Your task to perform on an android device: snooze an email in the gmail app Image 0: 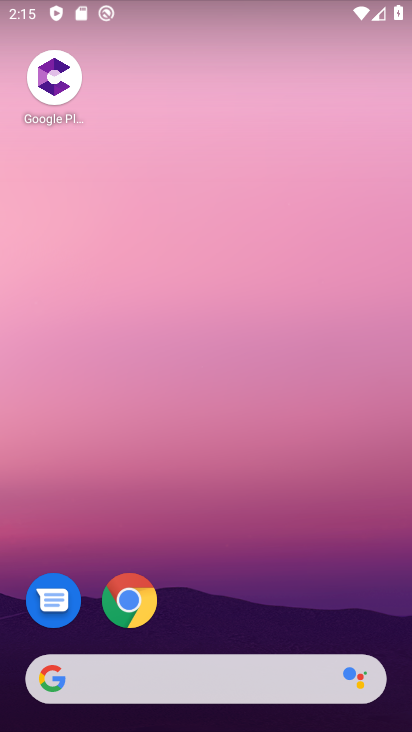
Step 0: drag from (161, 620) to (245, 239)
Your task to perform on an android device: snooze an email in the gmail app Image 1: 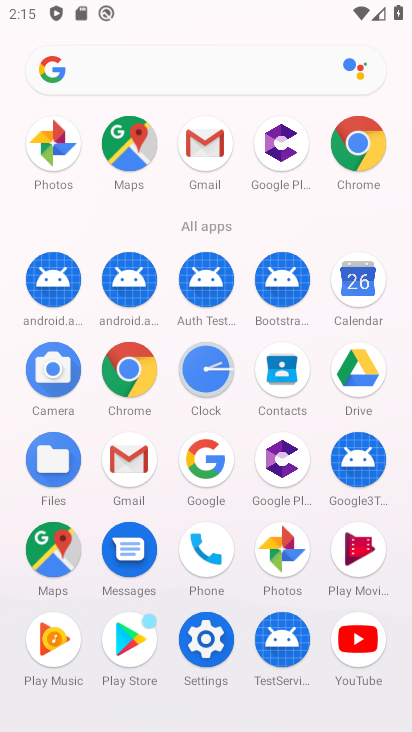
Step 1: click (134, 468)
Your task to perform on an android device: snooze an email in the gmail app Image 2: 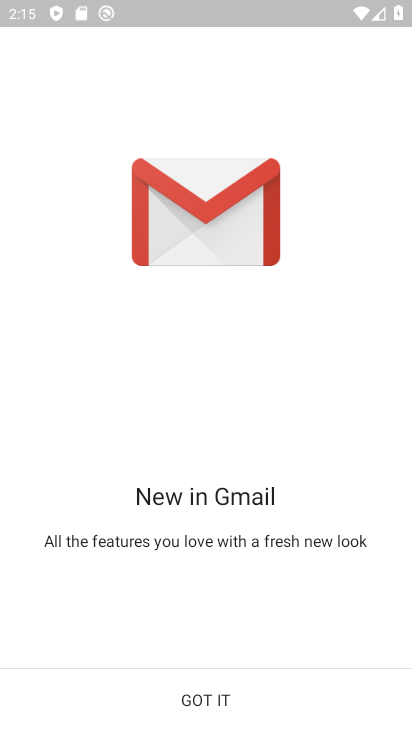
Step 2: click (215, 704)
Your task to perform on an android device: snooze an email in the gmail app Image 3: 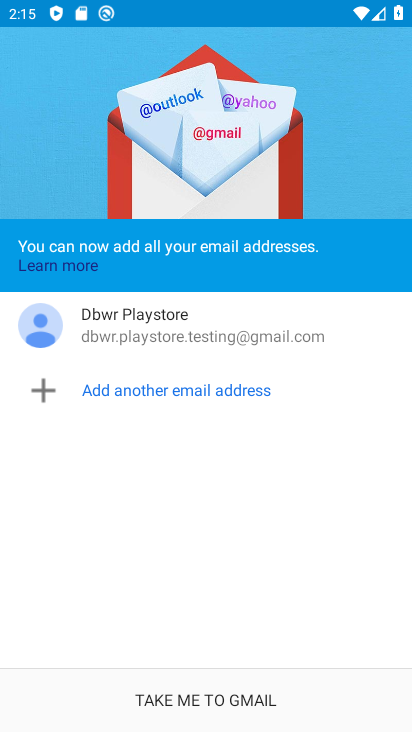
Step 3: click (286, 704)
Your task to perform on an android device: snooze an email in the gmail app Image 4: 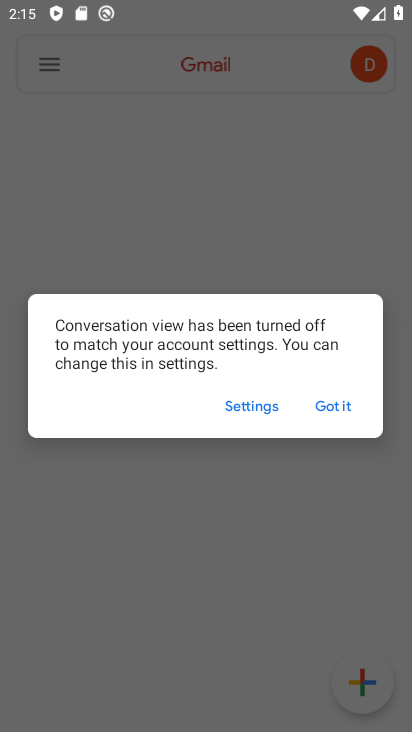
Step 4: click (348, 406)
Your task to perform on an android device: snooze an email in the gmail app Image 5: 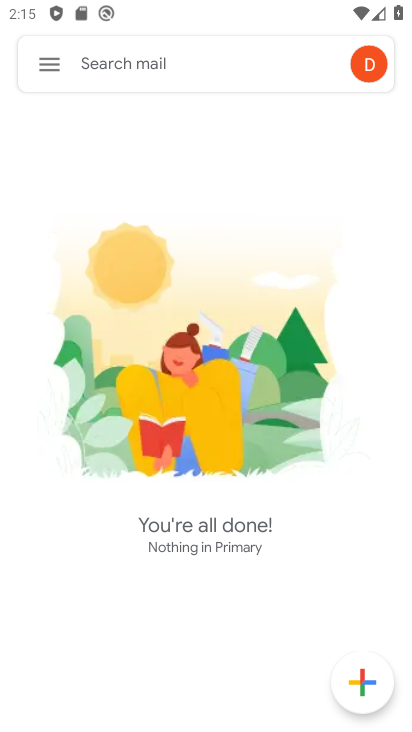
Step 5: click (55, 65)
Your task to perform on an android device: snooze an email in the gmail app Image 6: 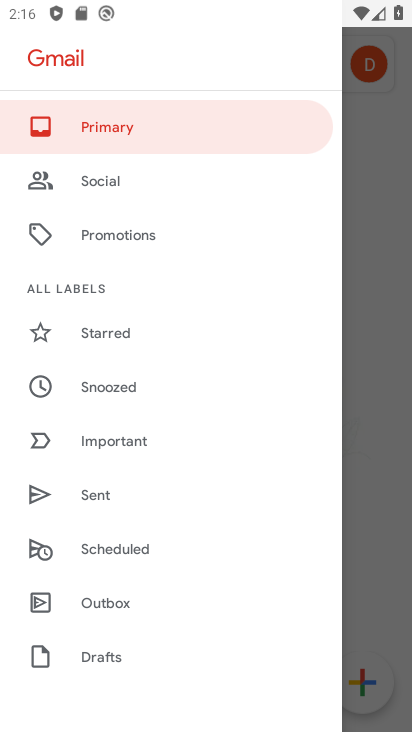
Step 6: drag from (129, 623) to (236, 347)
Your task to perform on an android device: snooze an email in the gmail app Image 7: 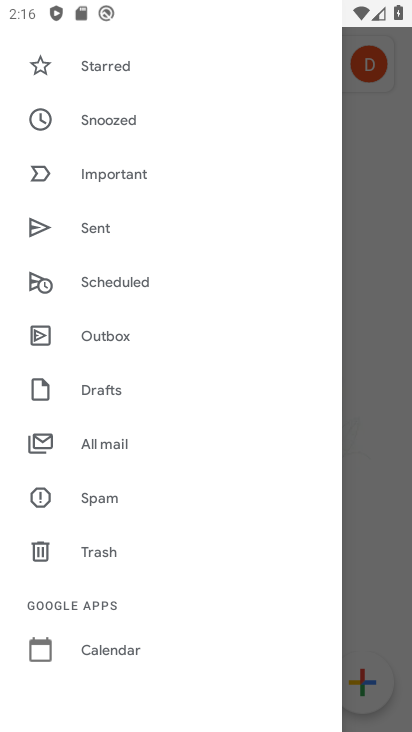
Step 7: drag from (133, 649) to (224, 556)
Your task to perform on an android device: snooze an email in the gmail app Image 8: 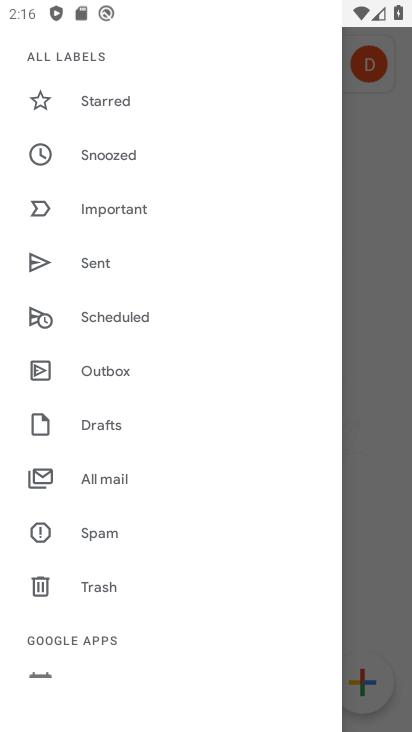
Step 8: click (138, 484)
Your task to perform on an android device: snooze an email in the gmail app Image 9: 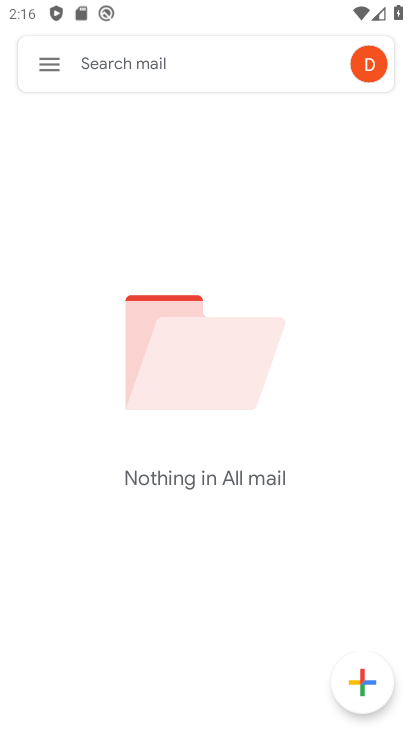
Step 9: task complete